Your task to perform on an android device: Go to Yahoo.com Image 0: 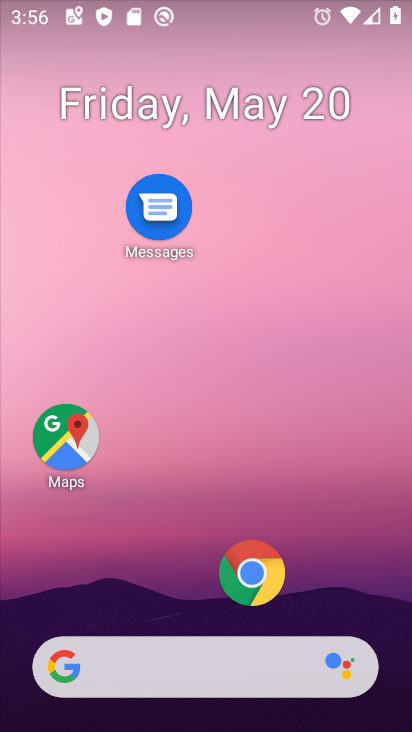
Step 0: drag from (210, 642) to (377, 381)
Your task to perform on an android device: Go to Yahoo.com Image 1: 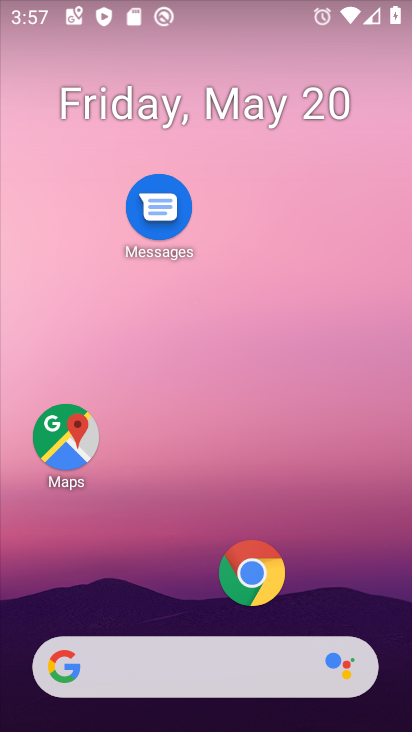
Step 1: drag from (201, 627) to (161, 52)
Your task to perform on an android device: Go to Yahoo.com Image 2: 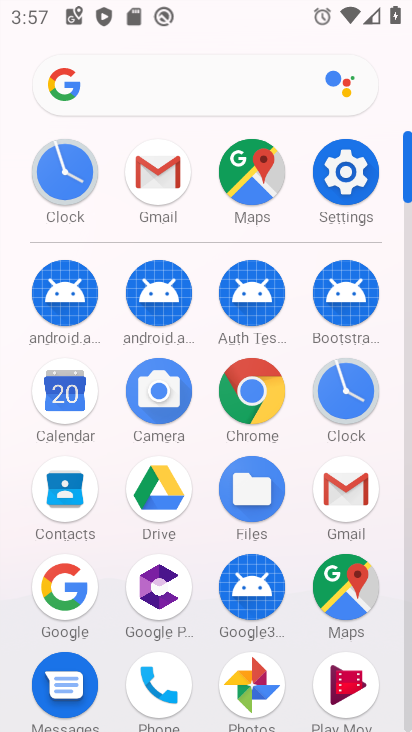
Step 2: click (253, 411)
Your task to perform on an android device: Go to Yahoo.com Image 3: 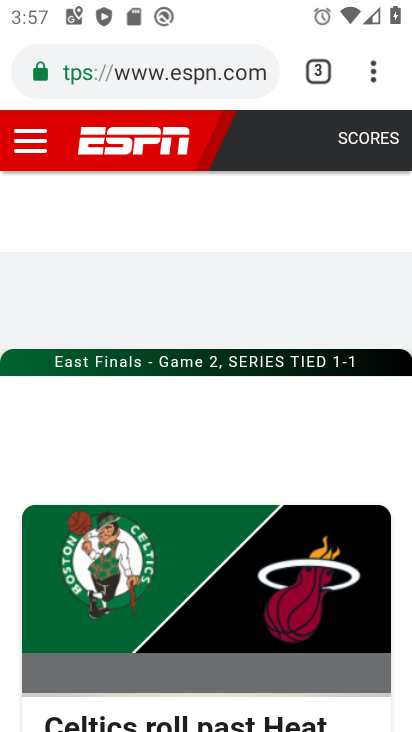
Step 3: click (318, 75)
Your task to perform on an android device: Go to Yahoo.com Image 4: 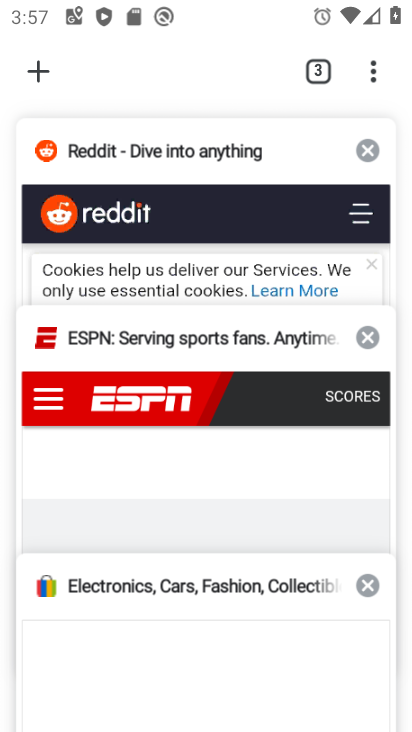
Step 4: click (29, 76)
Your task to perform on an android device: Go to Yahoo.com Image 5: 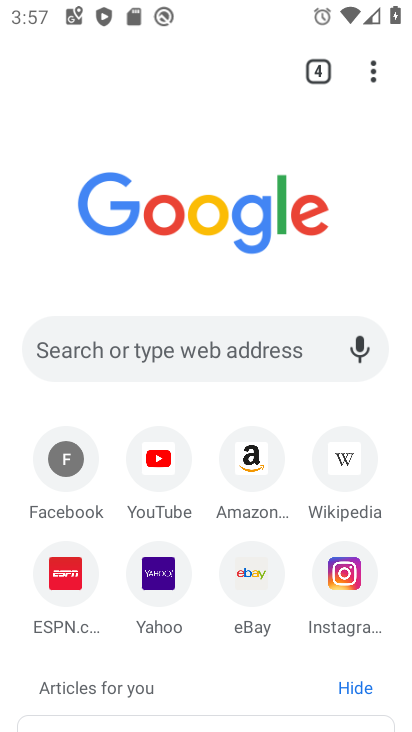
Step 5: click (146, 583)
Your task to perform on an android device: Go to Yahoo.com Image 6: 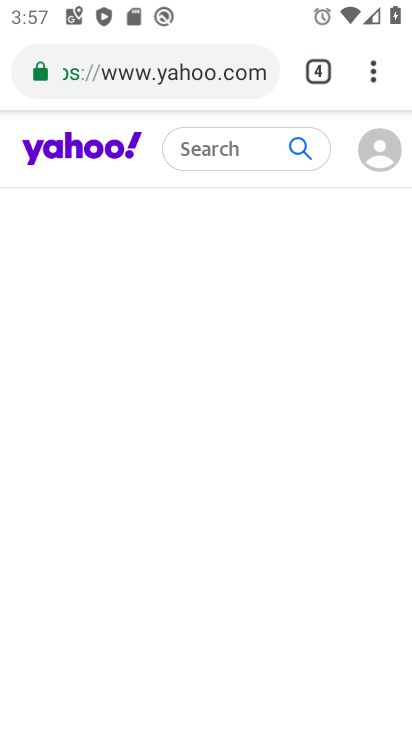
Step 6: task complete